Your task to perform on an android device: add a label to a message in the gmail app Image 0: 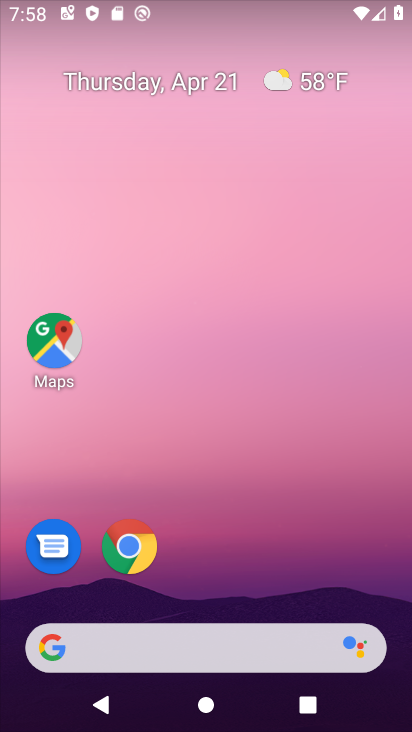
Step 0: drag from (290, 496) to (244, 46)
Your task to perform on an android device: add a label to a message in the gmail app Image 1: 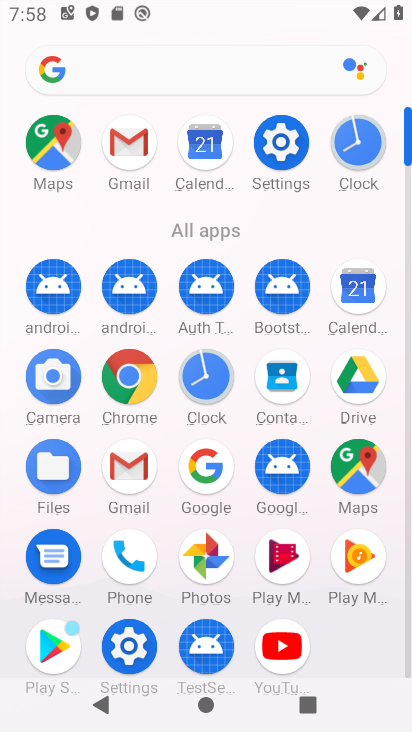
Step 1: click (134, 144)
Your task to perform on an android device: add a label to a message in the gmail app Image 2: 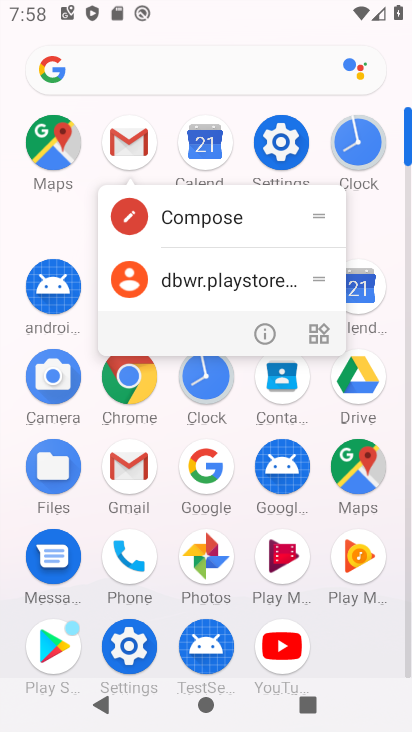
Step 2: click (138, 159)
Your task to perform on an android device: add a label to a message in the gmail app Image 3: 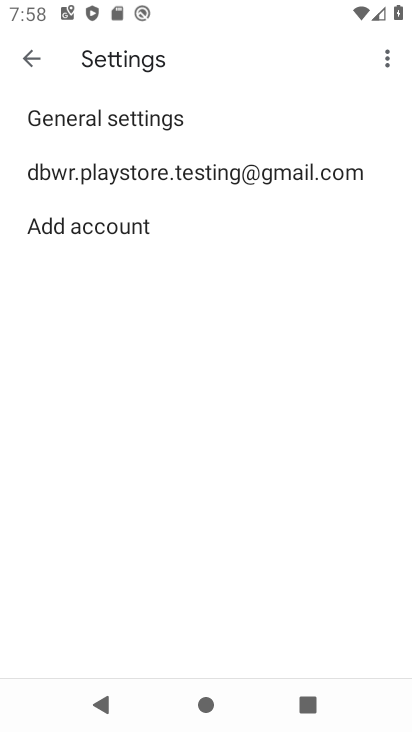
Step 3: click (113, 173)
Your task to perform on an android device: add a label to a message in the gmail app Image 4: 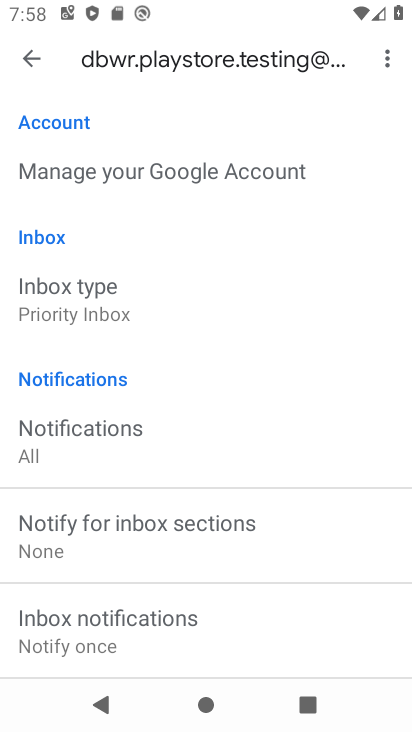
Step 4: click (32, 68)
Your task to perform on an android device: add a label to a message in the gmail app Image 5: 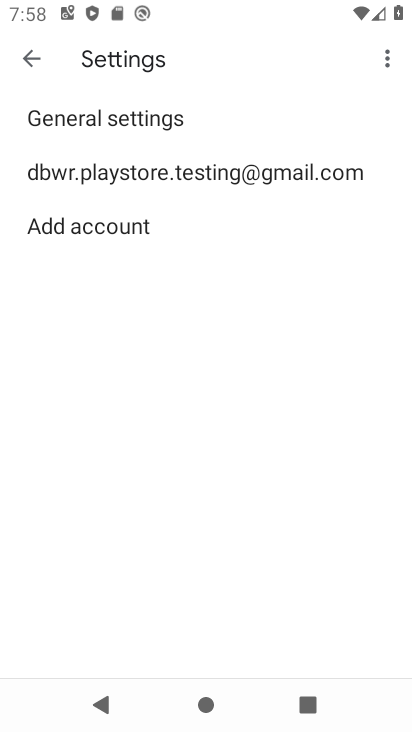
Step 5: click (32, 68)
Your task to perform on an android device: add a label to a message in the gmail app Image 6: 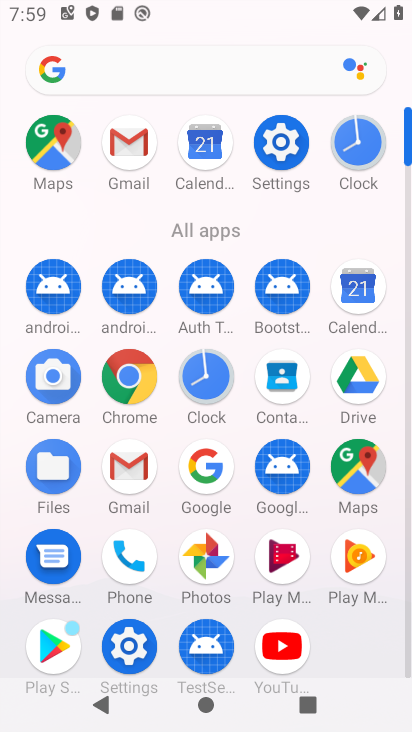
Step 6: click (126, 128)
Your task to perform on an android device: add a label to a message in the gmail app Image 7: 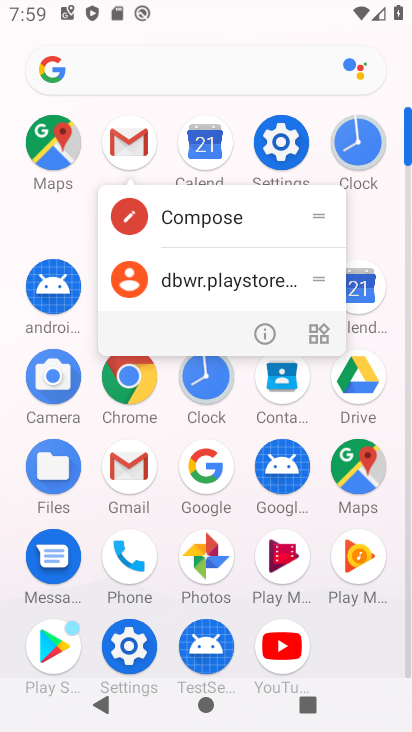
Step 7: click (126, 128)
Your task to perform on an android device: add a label to a message in the gmail app Image 8: 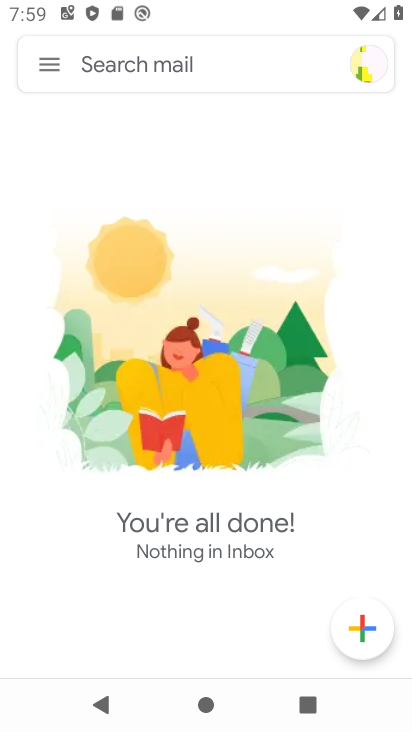
Step 8: task complete